Your task to perform on an android device: Open the calendar app, open the side menu, and click the "Day" option Image 0: 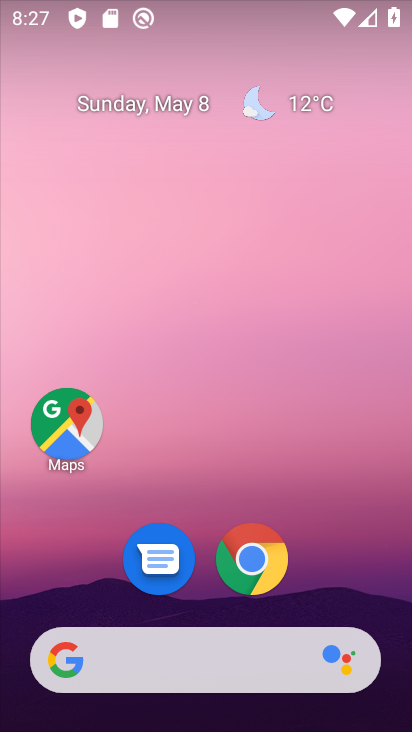
Step 0: drag from (198, 614) to (117, 35)
Your task to perform on an android device: Open the calendar app, open the side menu, and click the "Day" option Image 1: 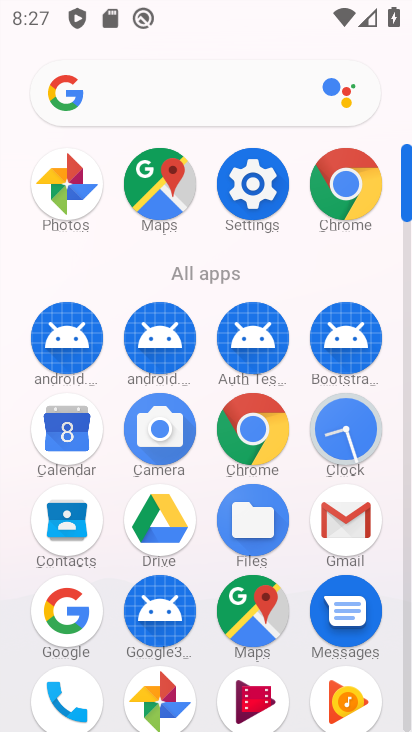
Step 1: click (83, 436)
Your task to perform on an android device: Open the calendar app, open the side menu, and click the "Day" option Image 2: 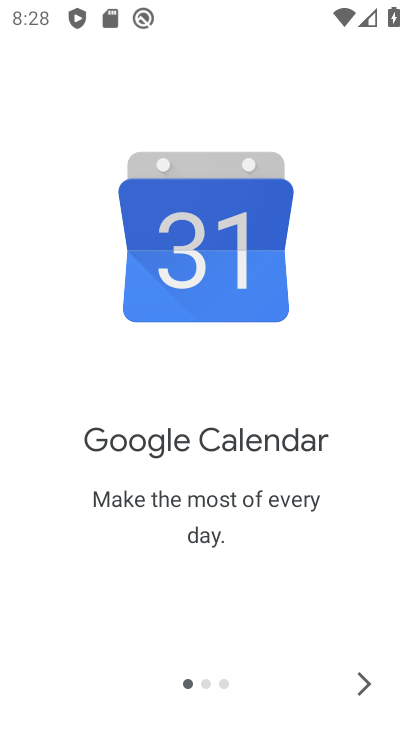
Step 2: click (354, 684)
Your task to perform on an android device: Open the calendar app, open the side menu, and click the "Day" option Image 3: 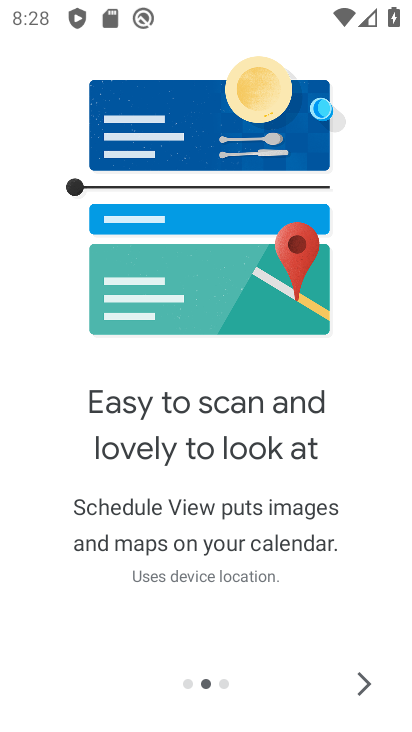
Step 3: click (361, 694)
Your task to perform on an android device: Open the calendar app, open the side menu, and click the "Day" option Image 4: 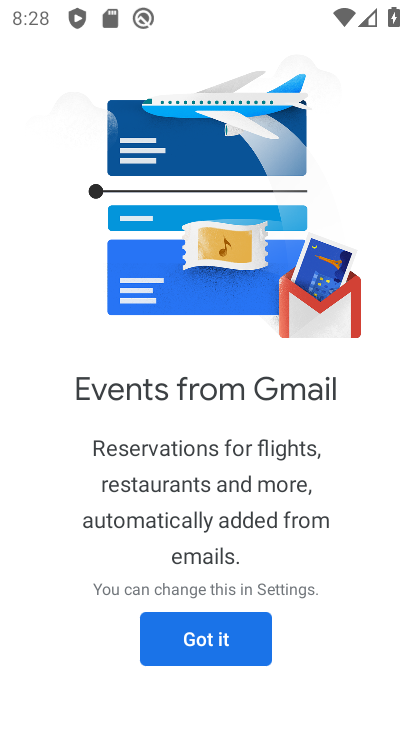
Step 4: click (210, 652)
Your task to perform on an android device: Open the calendar app, open the side menu, and click the "Day" option Image 5: 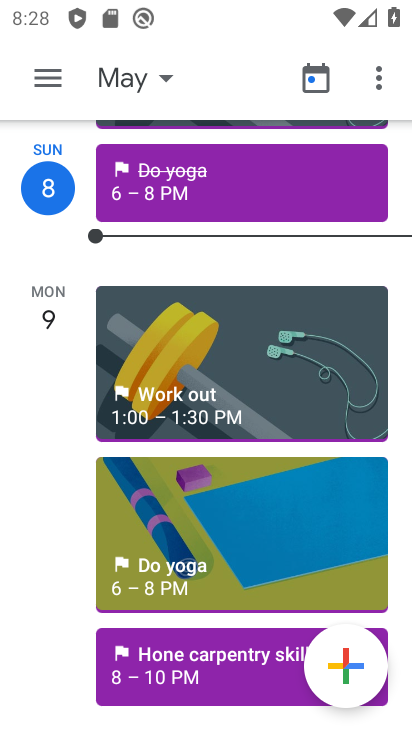
Step 5: click (48, 73)
Your task to perform on an android device: Open the calendar app, open the side menu, and click the "Day" option Image 6: 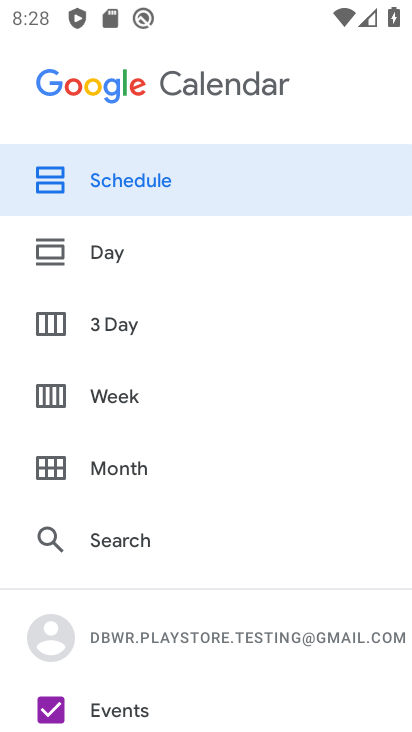
Step 6: click (117, 256)
Your task to perform on an android device: Open the calendar app, open the side menu, and click the "Day" option Image 7: 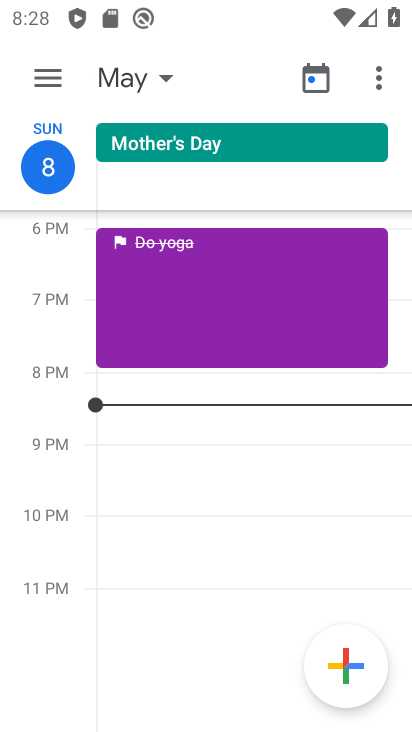
Step 7: task complete